Your task to perform on an android device: Open Chrome and go to settings Image 0: 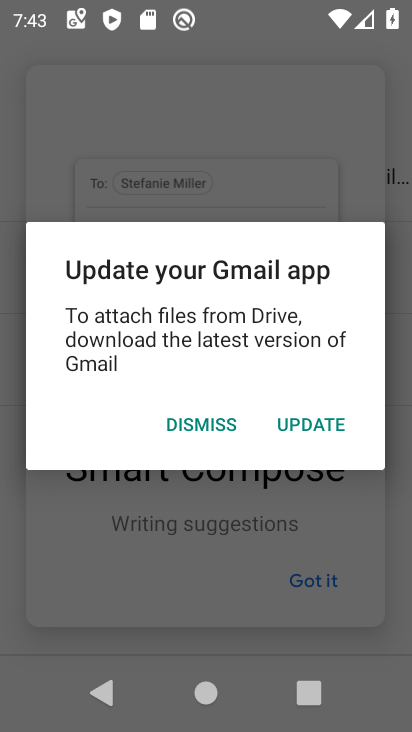
Step 0: press home button
Your task to perform on an android device: Open Chrome and go to settings Image 1: 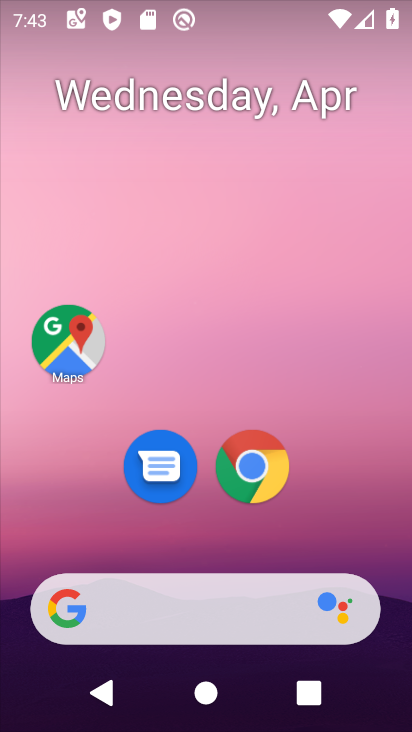
Step 1: click (272, 486)
Your task to perform on an android device: Open Chrome and go to settings Image 2: 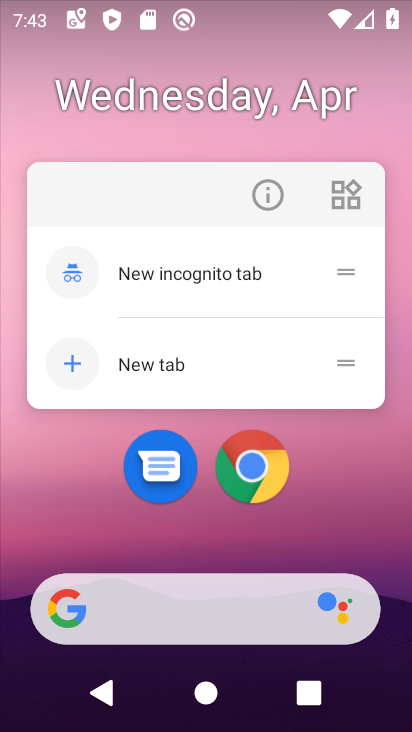
Step 2: click (124, 371)
Your task to perform on an android device: Open Chrome and go to settings Image 3: 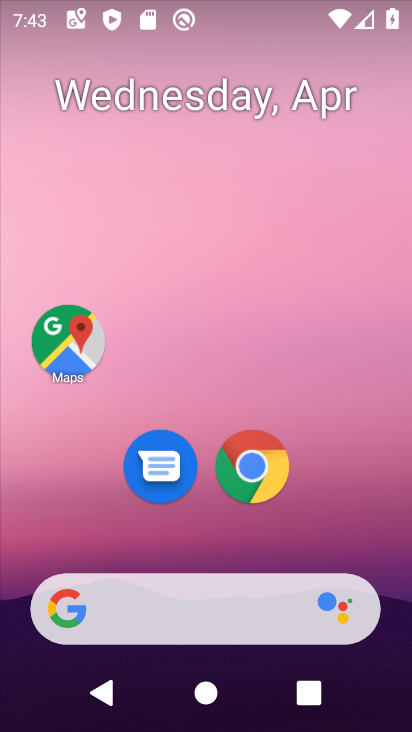
Step 3: click (260, 481)
Your task to perform on an android device: Open Chrome and go to settings Image 4: 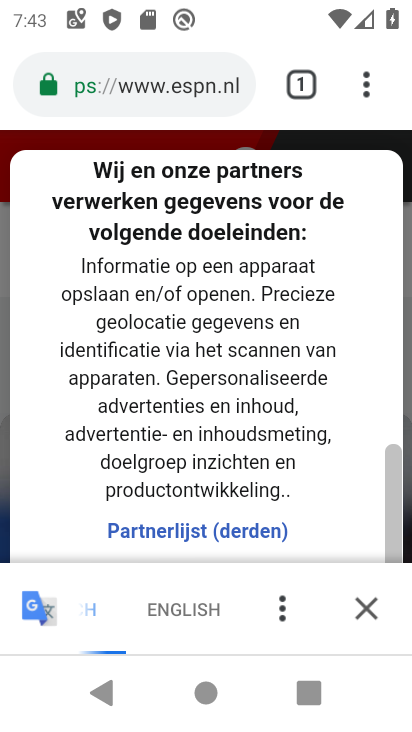
Step 4: click (369, 606)
Your task to perform on an android device: Open Chrome and go to settings Image 5: 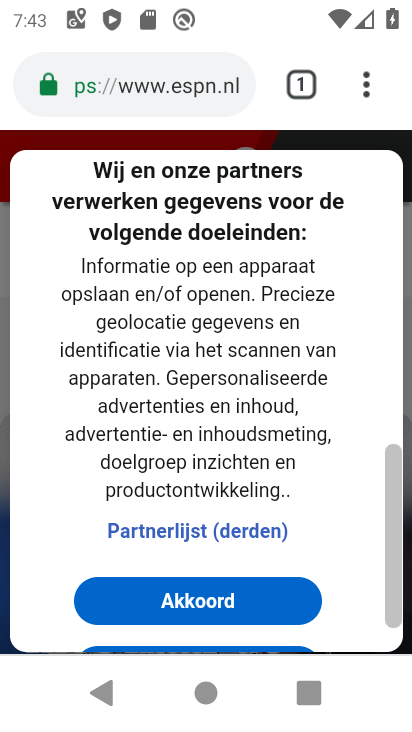
Step 5: click (365, 88)
Your task to perform on an android device: Open Chrome and go to settings Image 6: 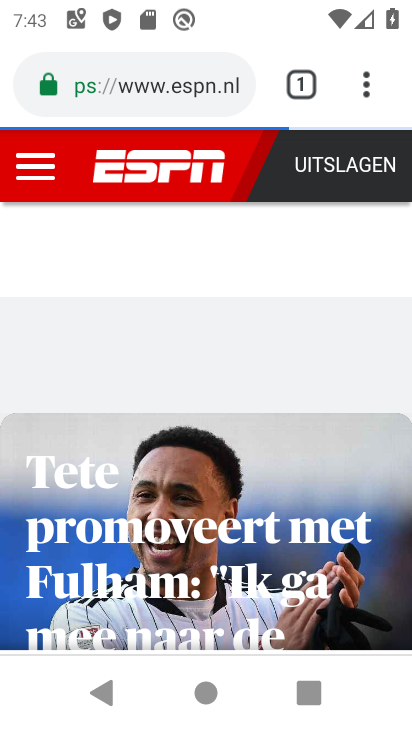
Step 6: click (369, 86)
Your task to perform on an android device: Open Chrome and go to settings Image 7: 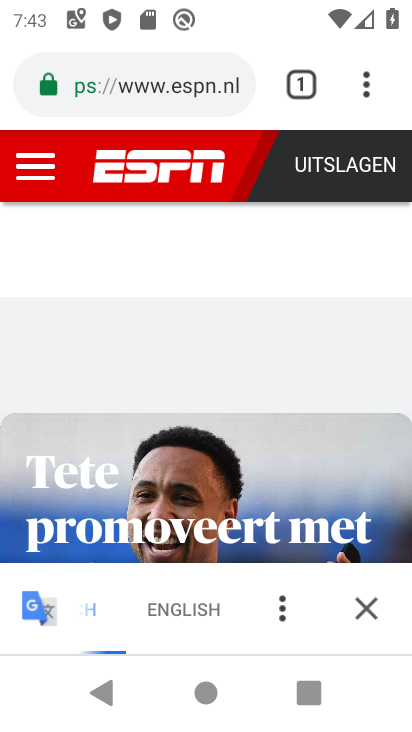
Step 7: click (367, 88)
Your task to perform on an android device: Open Chrome and go to settings Image 8: 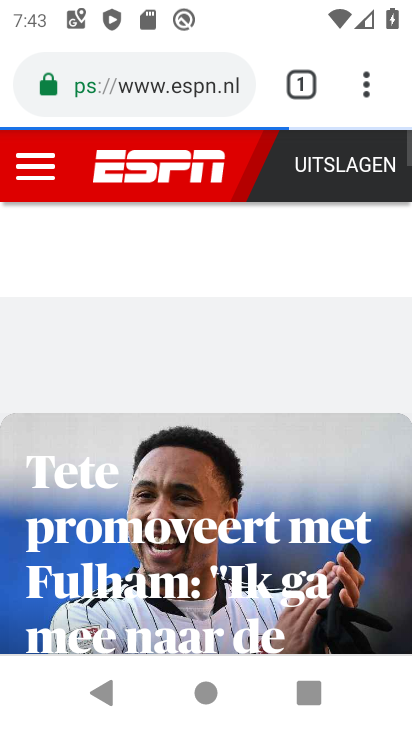
Step 8: click (364, 87)
Your task to perform on an android device: Open Chrome and go to settings Image 9: 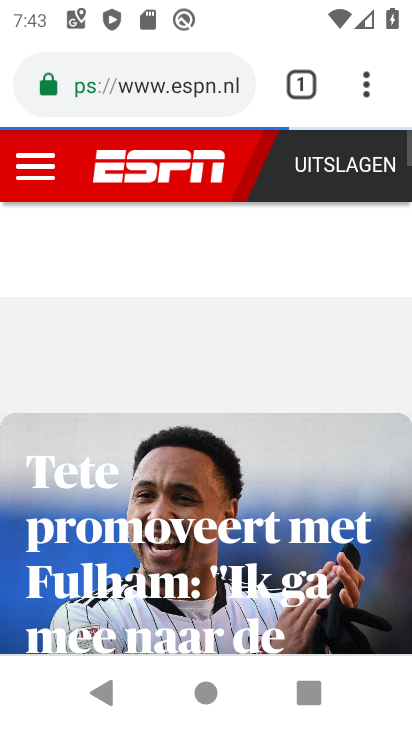
Step 9: click (368, 88)
Your task to perform on an android device: Open Chrome and go to settings Image 10: 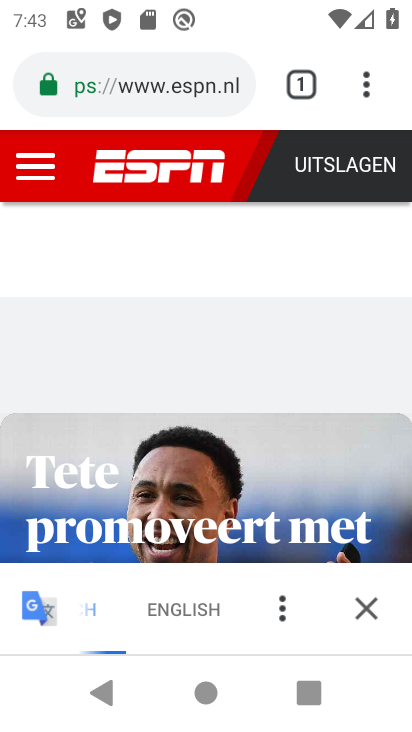
Step 10: click (368, 79)
Your task to perform on an android device: Open Chrome and go to settings Image 11: 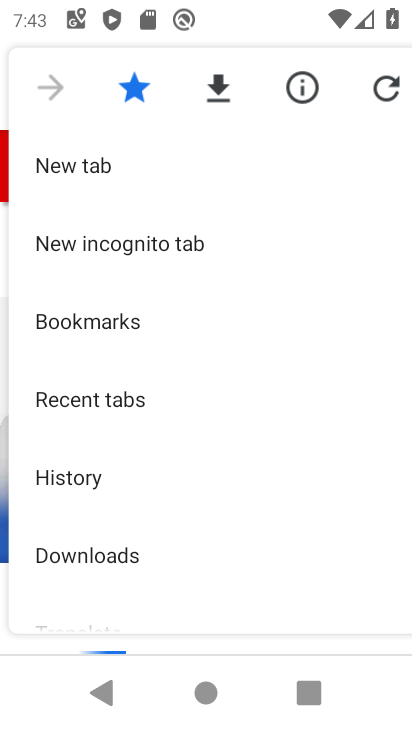
Step 11: drag from (142, 472) to (146, 176)
Your task to perform on an android device: Open Chrome and go to settings Image 12: 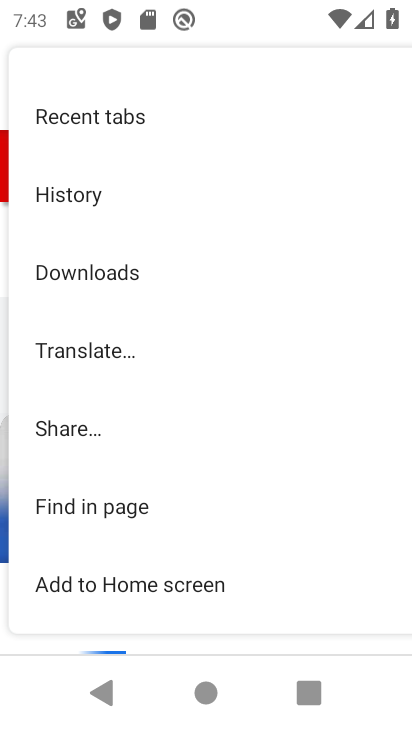
Step 12: drag from (200, 520) to (184, 232)
Your task to perform on an android device: Open Chrome and go to settings Image 13: 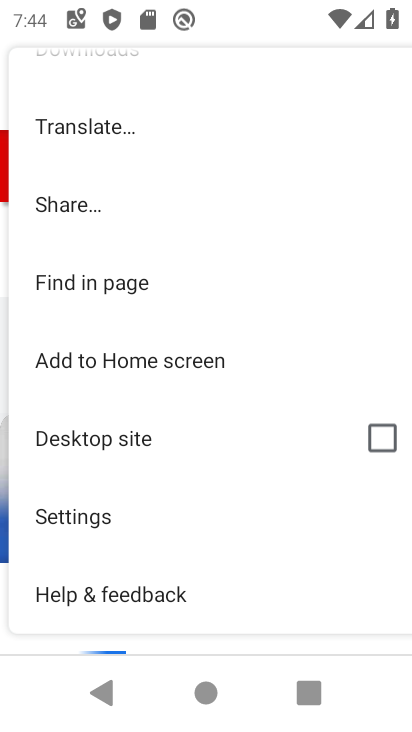
Step 13: click (83, 516)
Your task to perform on an android device: Open Chrome and go to settings Image 14: 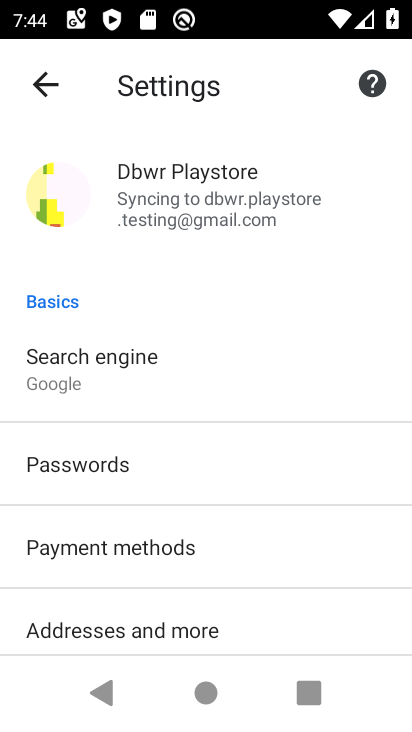
Step 14: task complete